Your task to perform on an android device: check google app version Image 0: 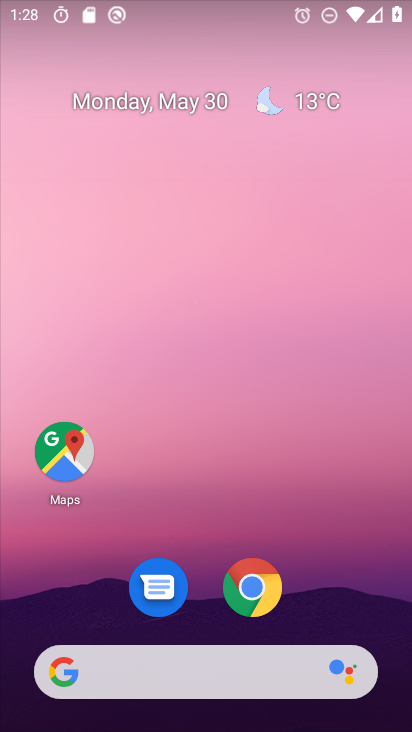
Step 0: drag from (339, 517) to (257, 138)
Your task to perform on an android device: check google app version Image 1: 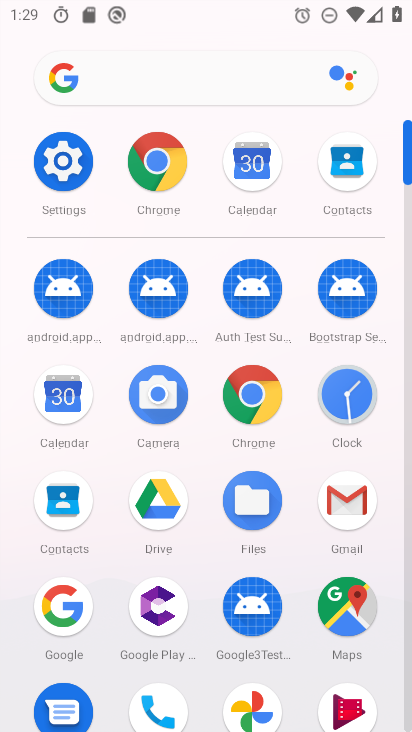
Step 1: drag from (301, 599) to (303, 132)
Your task to perform on an android device: check google app version Image 2: 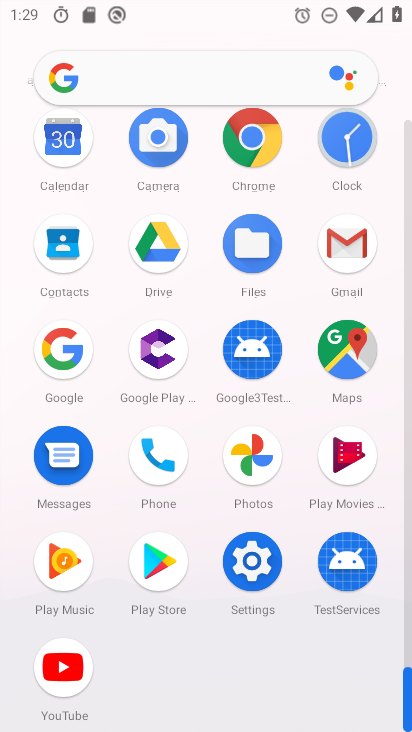
Step 2: drag from (298, 184) to (292, 564)
Your task to perform on an android device: check google app version Image 3: 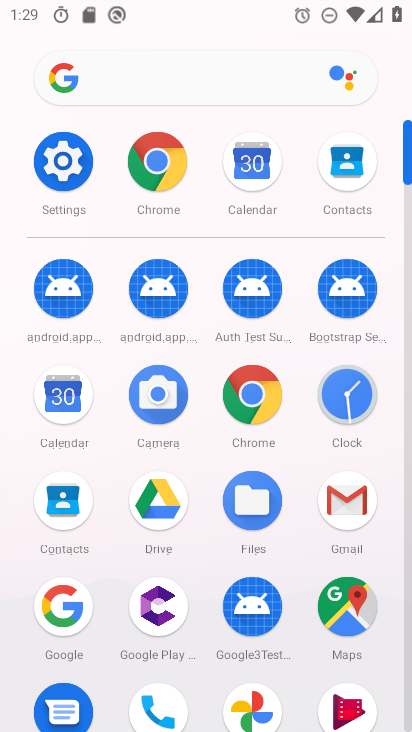
Step 3: click (68, 610)
Your task to perform on an android device: check google app version Image 4: 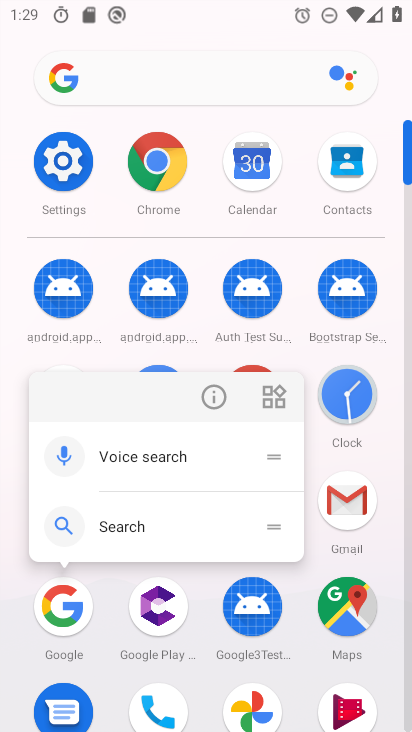
Step 4: click (210, 404)
Your task to perform on an android device: check google app version Image 5: 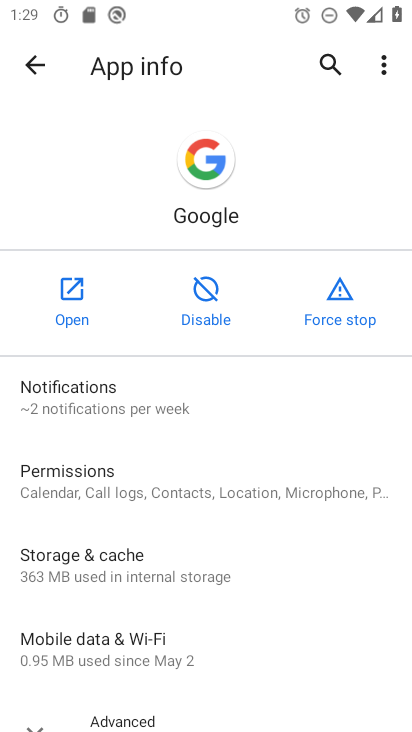
Step 5: drag from (232, 521) to (331, 27)
Your task to perform on an android device: check google app version Image 6: 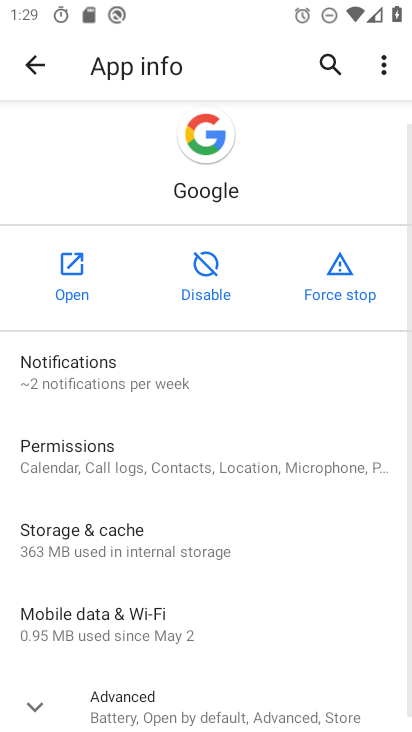
Step 6: click (178, 707)
Your task to perform on an android device: check google app version Image 7: 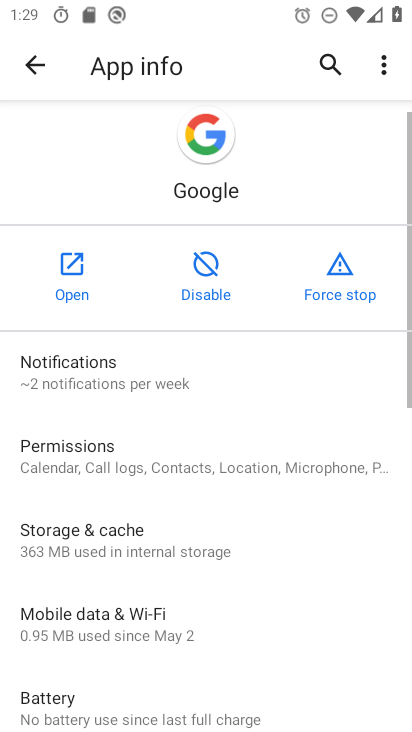
Step 7: task complete